Your task to perform on an android device: Search for vegetarian restaurants on Maps Image 0: 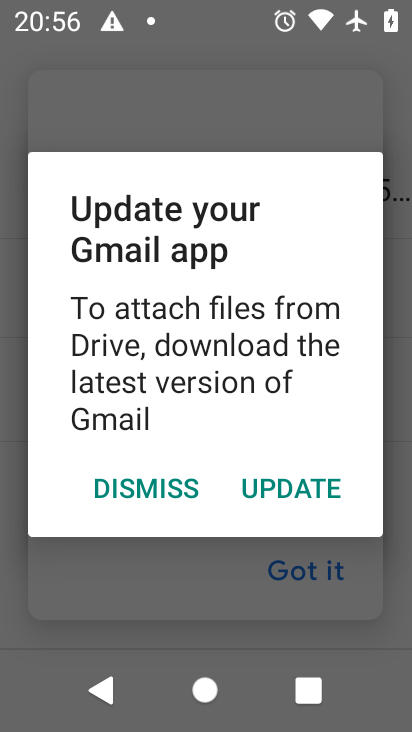
Step 0: press home button
Your task to perform on an android device: Search for vegetarian restaurants on Maps Image 1: 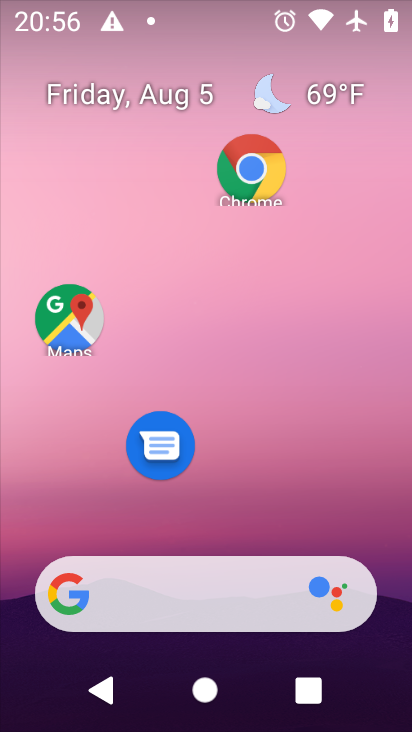
Step 1: click (94, 314)
Your task to perform on an android device: Search for vegetarian restaurants on Maps Image 2: 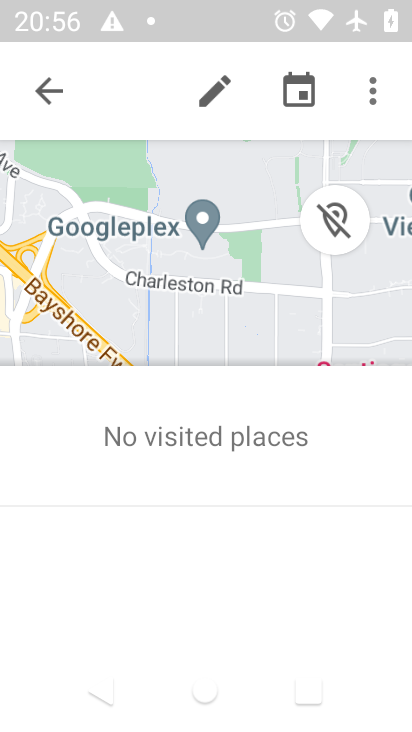
Step 2: click (43, 114)
Your task to perform on an android device: Search for vegetarian restaurants on Maps Image 3: 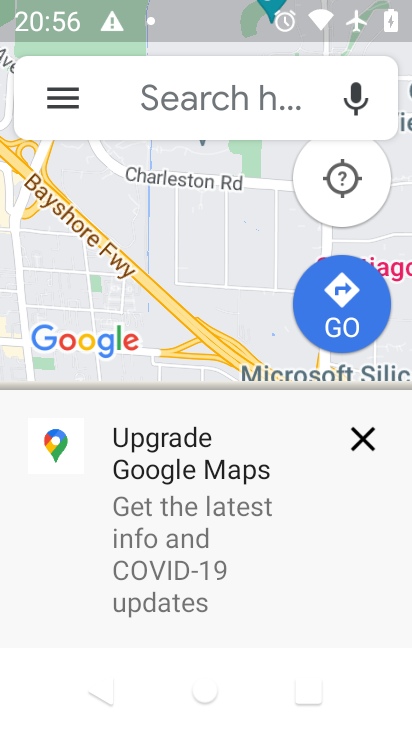
Step 3: click (190, 88)
Your task to perform on an android device: Search for vegetarian restaurants on Maps Image 4: 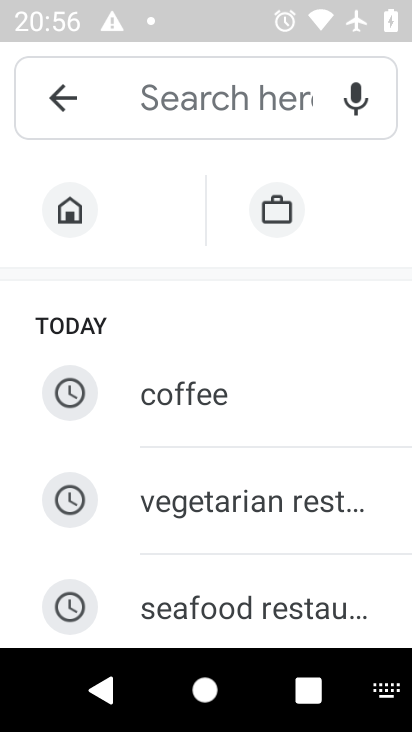
Step 4: click (220, 509)
Your task to perform on an android device: Search for vegetarian restaurants on Maps Image 5: 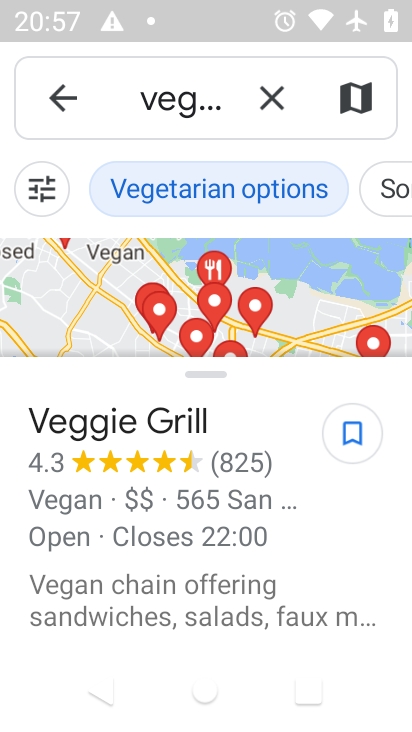
Step 5: task complete